Your task to perform on an android device: change timer sound Image 0: 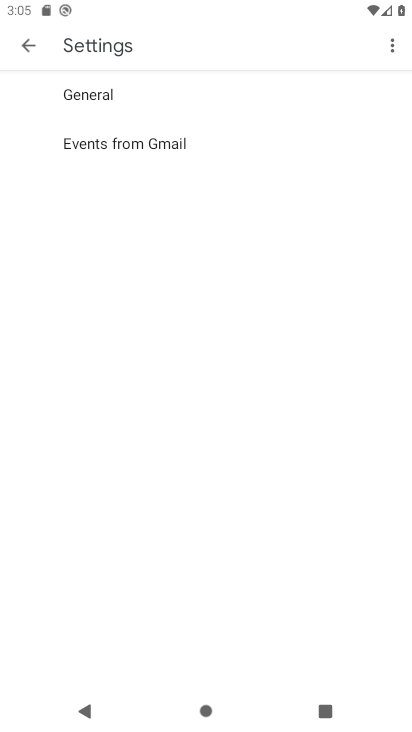
Step 0: press home button
Your task to perform on an android device: change timer sound Image 1: 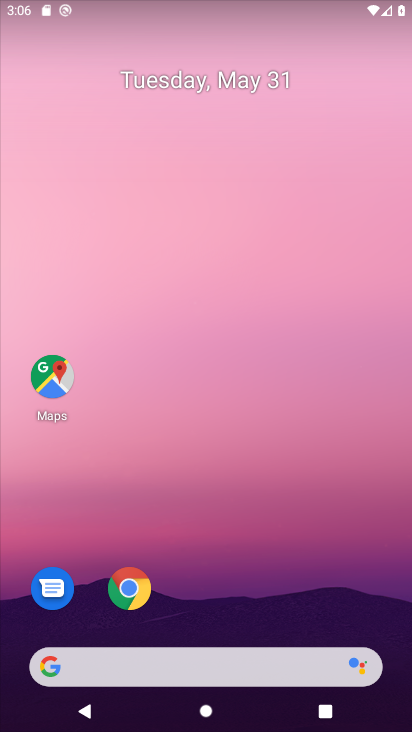
Step 1: drag from (248, 690) to (286, 156)
Your task to perform on an android device: change timer sound Image 2: 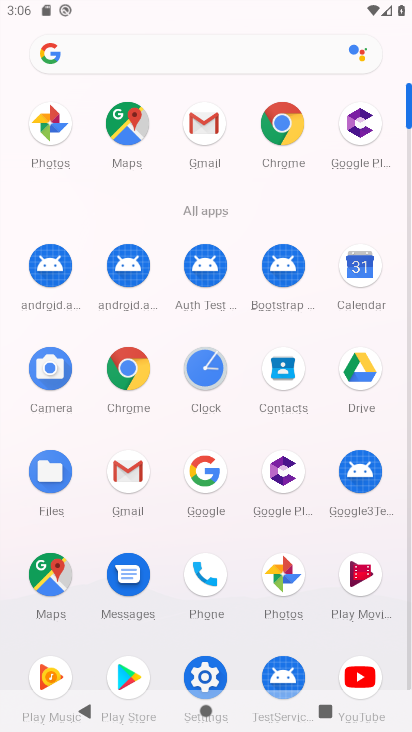
Step 2: click (211, 389)
Your task to perform on an android device: change timer sound Image 3: 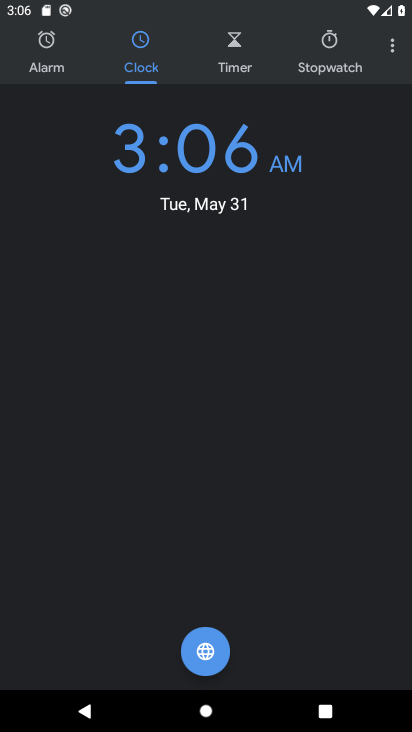
Step 3: click (394, 40)
Your task to perform on an android device: change timer sound Image 4: 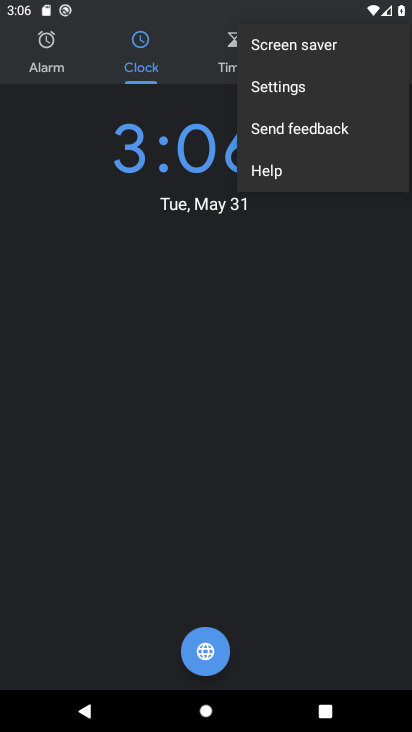
Step 4: click (286, 82)
Your task to perform on an android device: change timer sound Image 5: 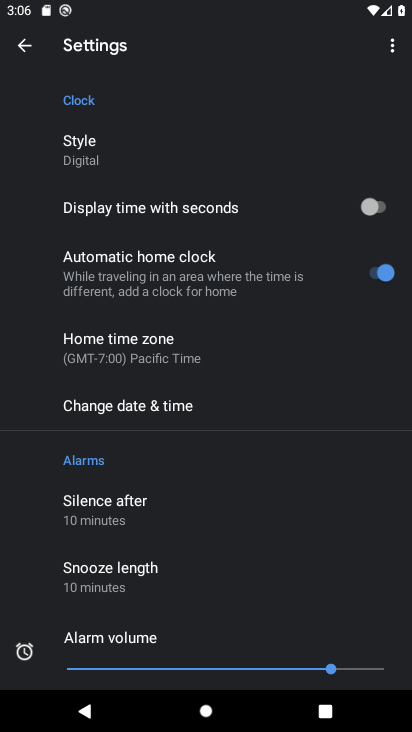
Step 5: drag from (205, 550) to (204, 273)
Your task to perform on an android device: change timer sound Image 6: 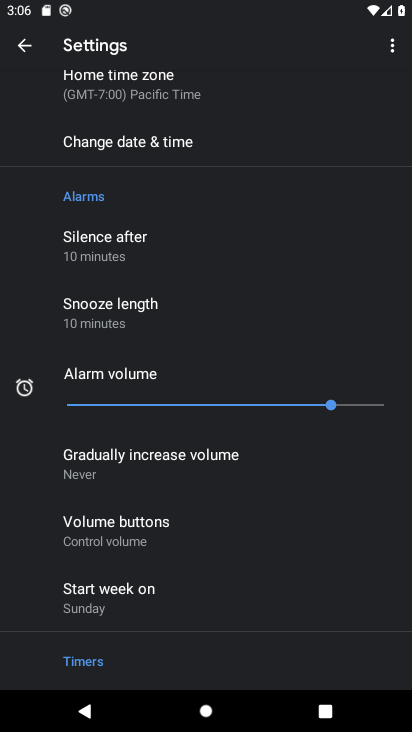
Step 6: drag from (113, 555) to (102, 433)
Your task to perform on an android device: change timer sound Image 7: 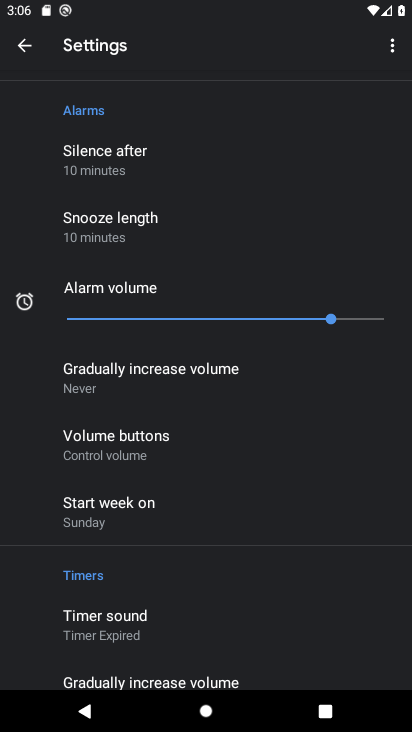
Step 7: click (133, 617)
Your task to perform on an android device: change timer sound Image 8: 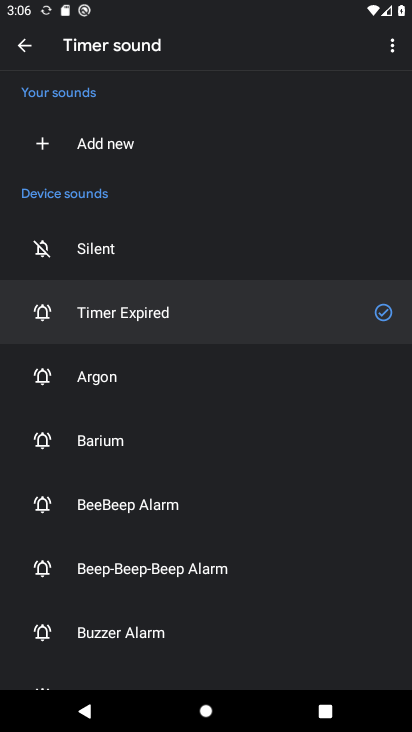
Step 8: click (125, 396)
Your task to perform on an android device: change timer sound Image 9: 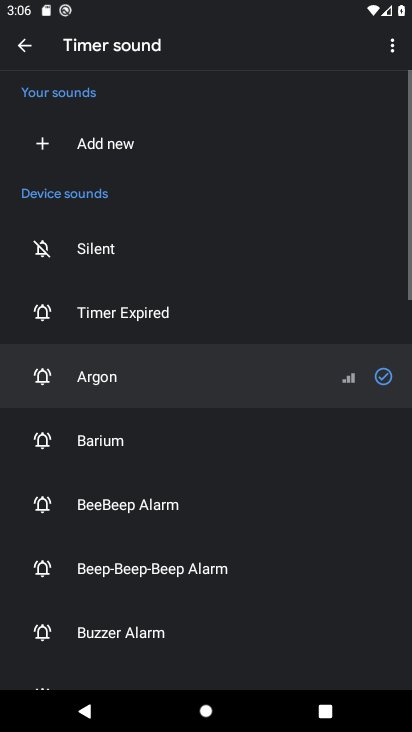
Step 9: task complete